Your task to perform on an android device: uninstall "PlayWell" Image 0: 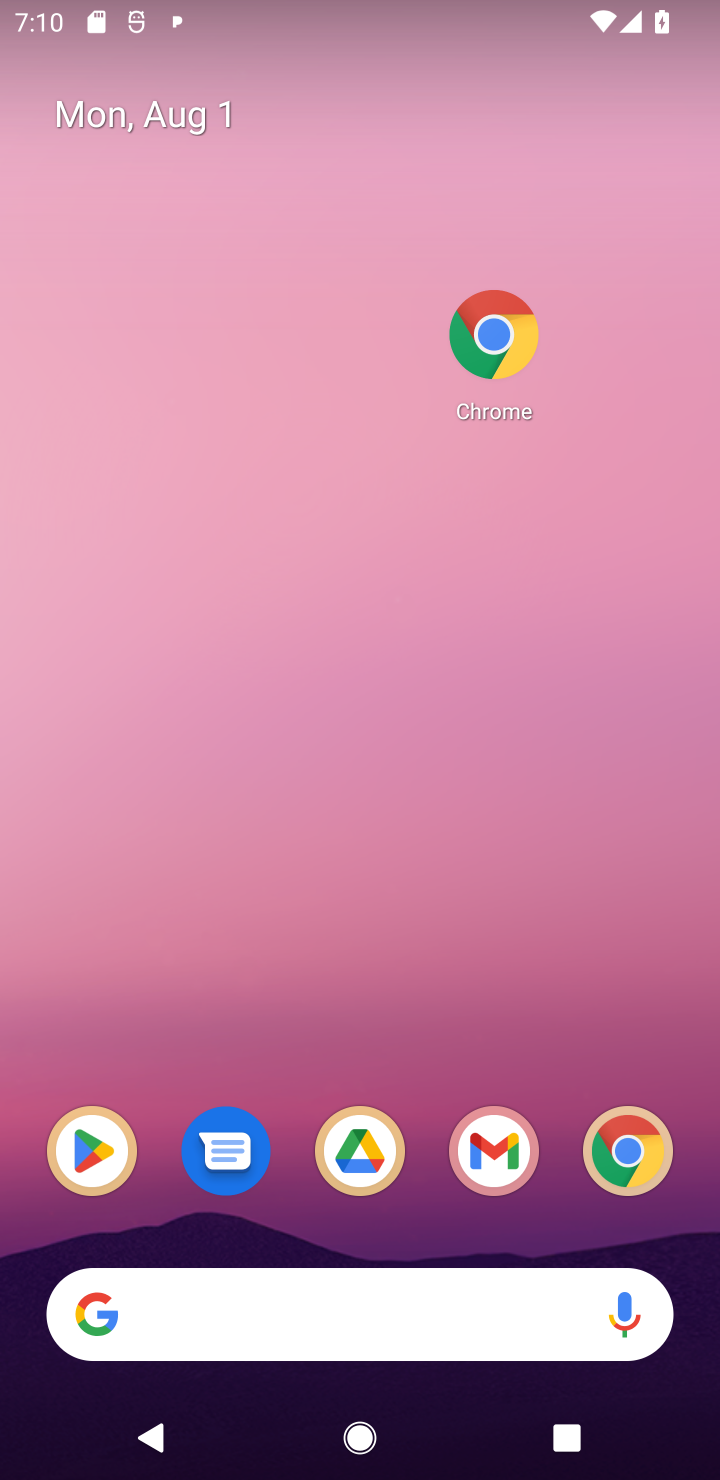
Step 0: click (97, 1166)
Your task to perform on an android device: uninstall "PlayWell" Image 1: 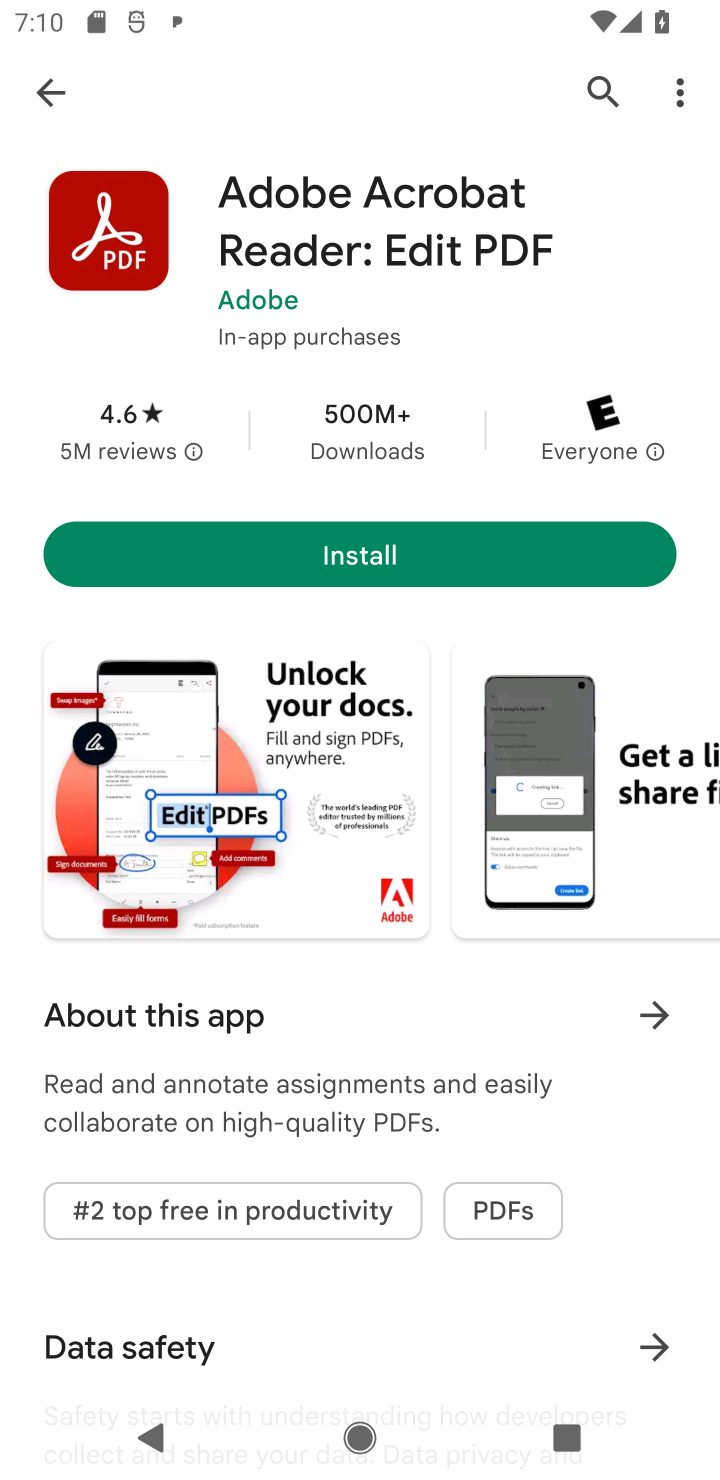
Step 1: click (601, 81)
Your task to perform on an android device: uninstall "PlayWell" Image 2: 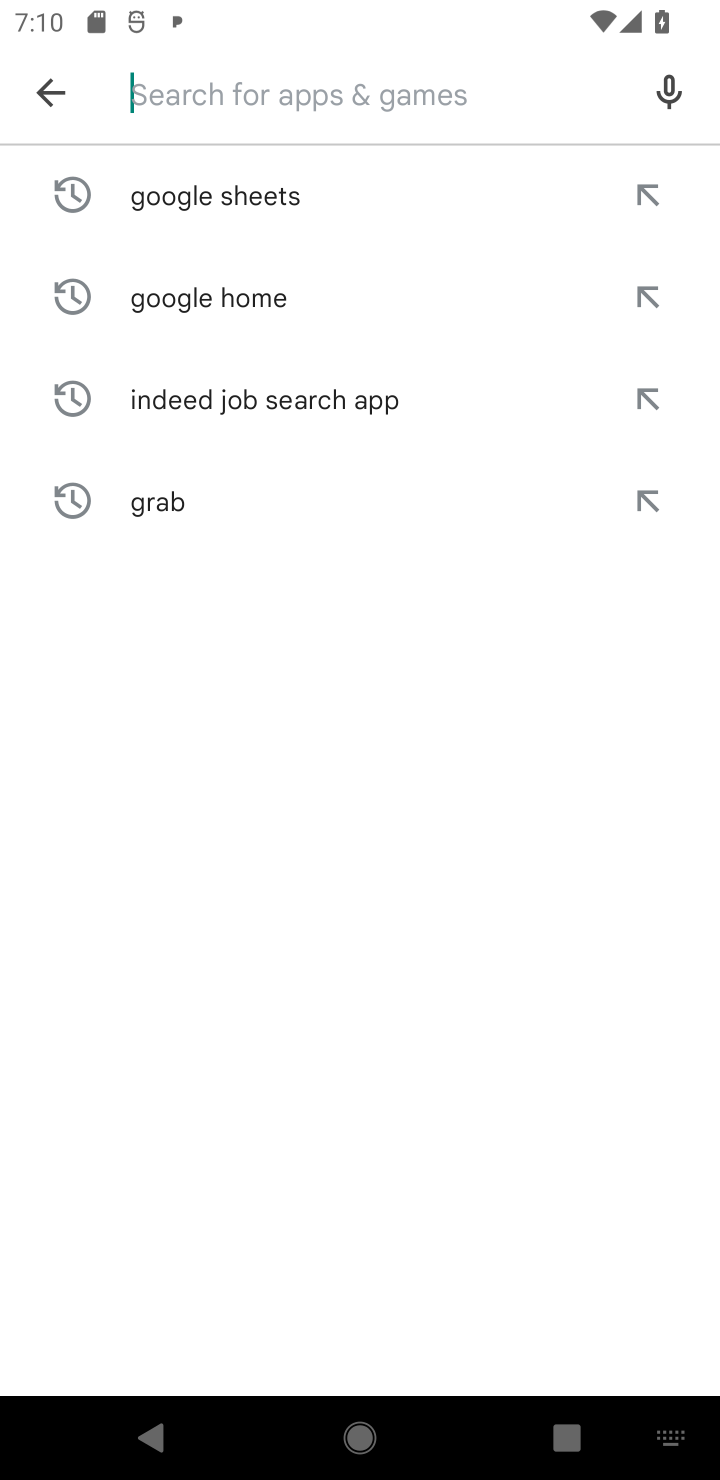
Step 2: type "PlayWell"
Your task to perform on an android device: uninstall "PlayWell" Image 3: 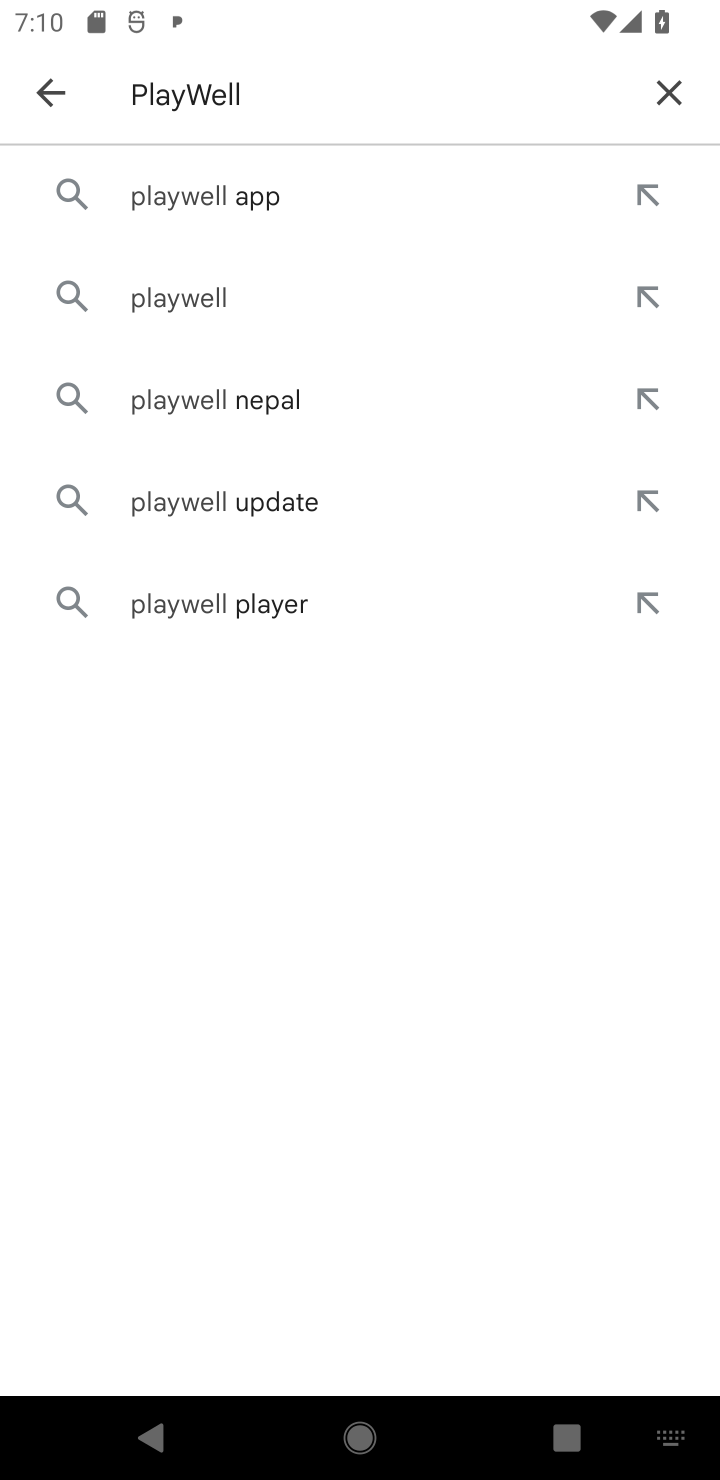
Step 3: click (186, 211)
Your task to perform on an android device: uninstall "PlayWell" Image 4: 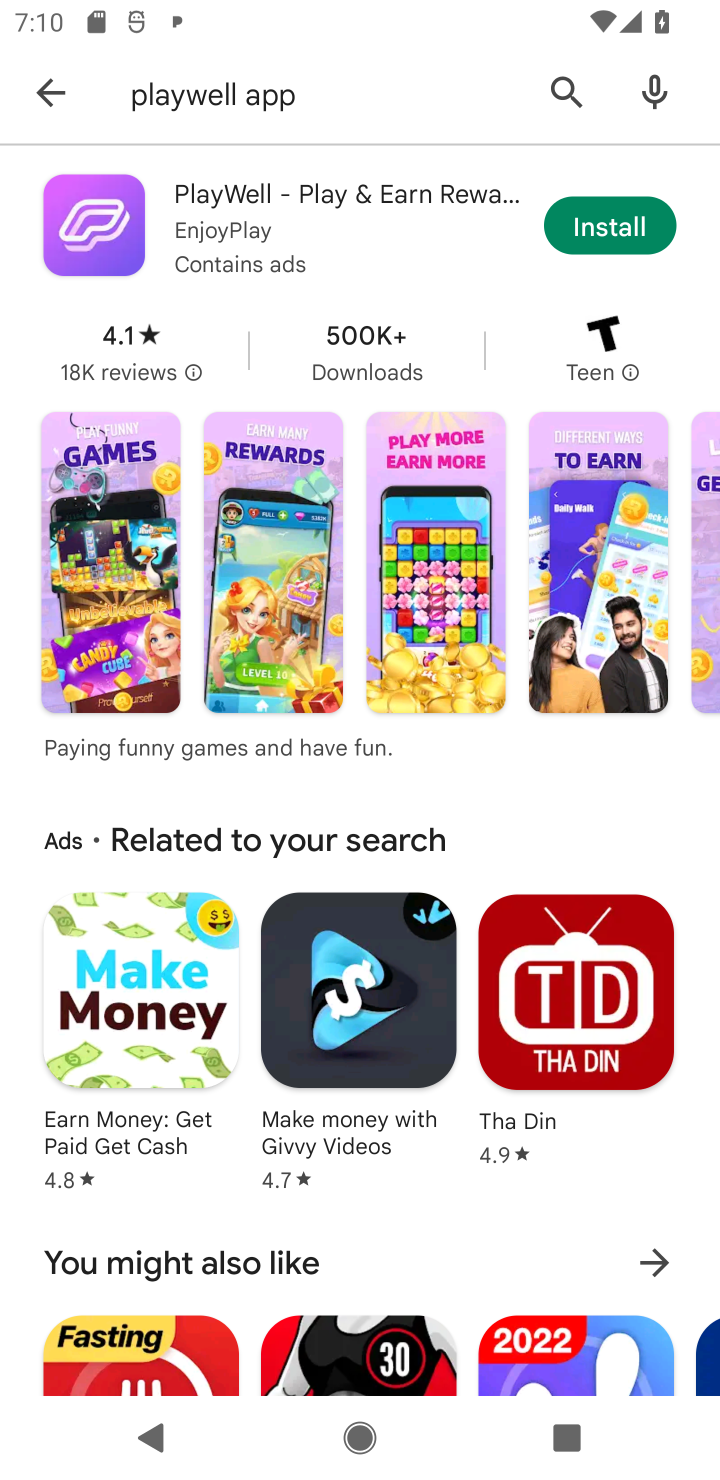
Step 4: task complete